Your task to perform on an android device: Go to Yahoo.com Image 0: 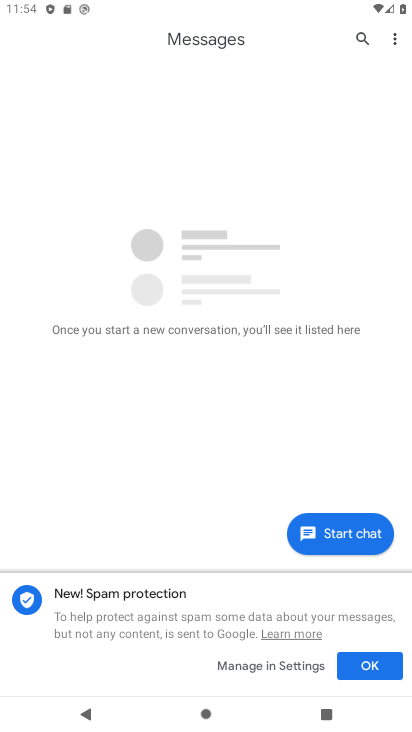
Step 0: press back button
Your task to perform on an android device: Go to Yahoo.com Image 1: 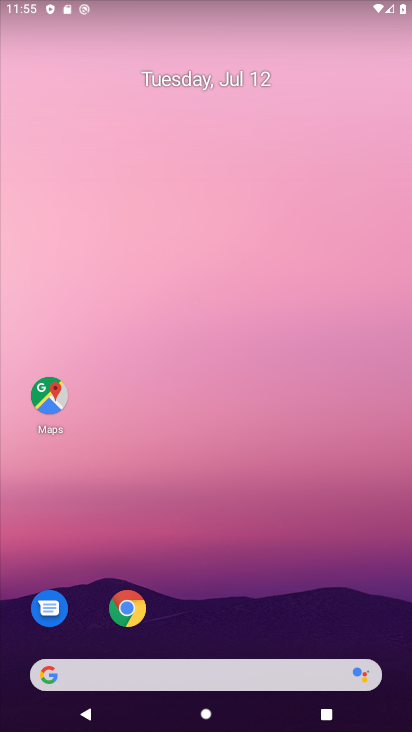
Step 1: click (136, 608)
Your task to perform on an android device: Go to Yahoo.com Image 2: 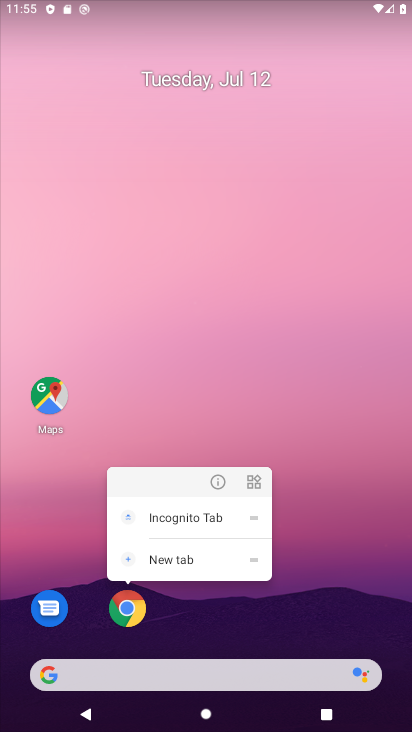
Step 2: click (136, 611)
Your task to perform on an android device: Go to Yahoo.com Image 3: 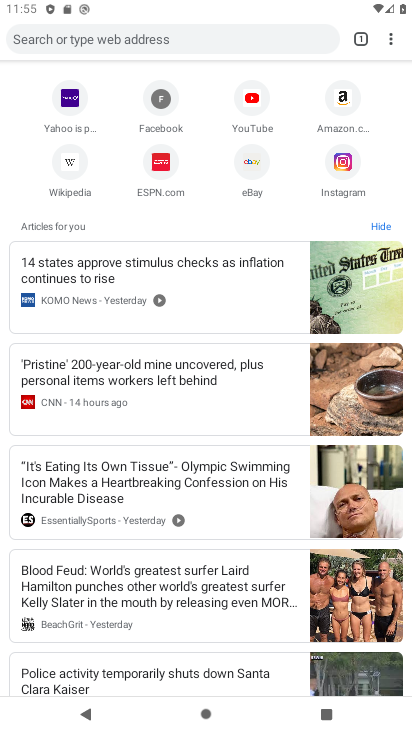
Step 3: click (80, 100)
Your task to perform on an android device: Go to Yahoo.com Image 4: 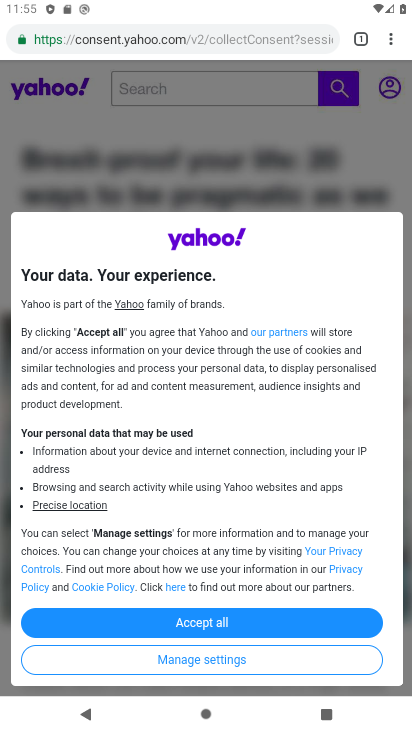
Step 4: task complete